Your task to perform on an android device: Go to eBay Image 0: 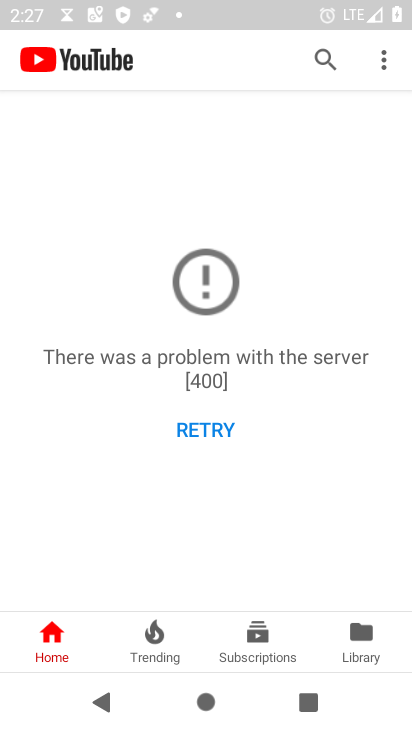
Step 0: press back button
Your task to perform on an android device: Go to eBay Image 1: 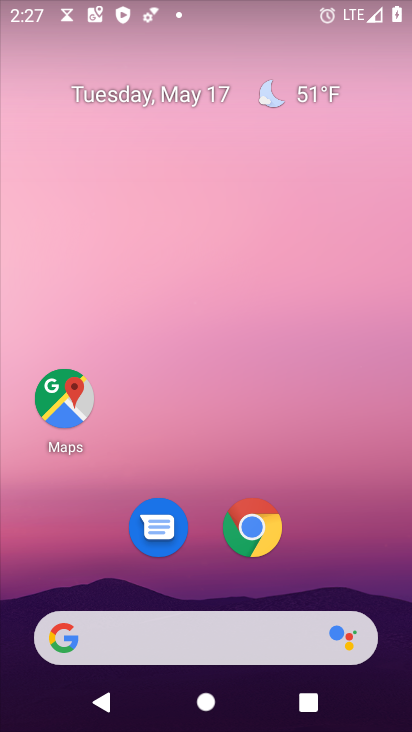
Step 1: drag from (336, 566) to (277, 133)
Your task to perform on an android device: Go to eBay Image 2: 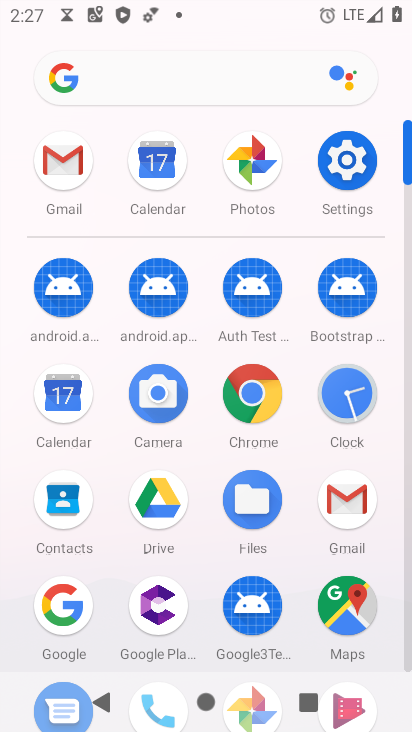
Step 2: click (58, 607)
Your task to perform on an android device: Go to eBay Image 3: 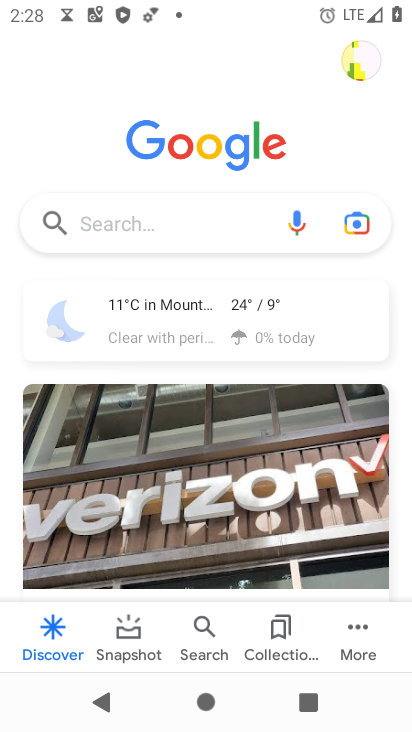
Step 3: click (211, 211)
Your task to perform on an android device: Go to eBay Image 4: 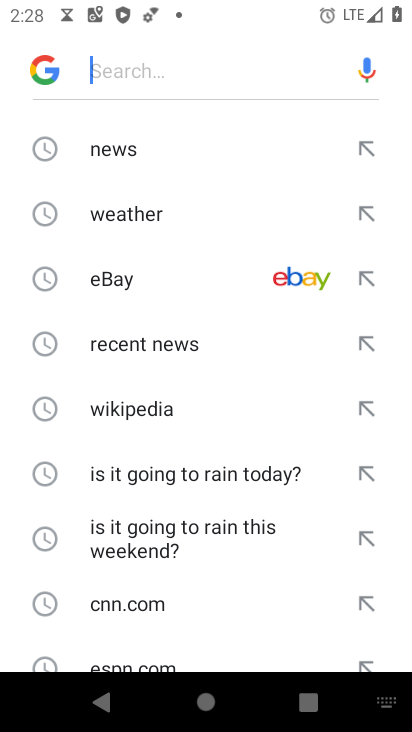
Step 4: type "eBay"
Your task to perform on an android device: Go to eBay Image 5: 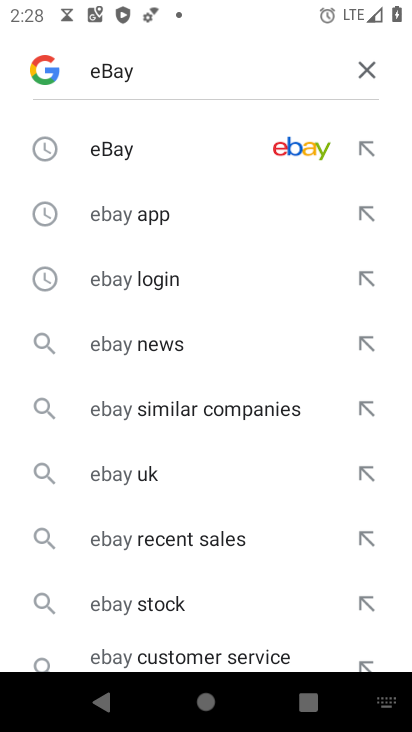
Step 5: click (189, 150)
Your task to perform on an android device: Go to eBay Image 6: 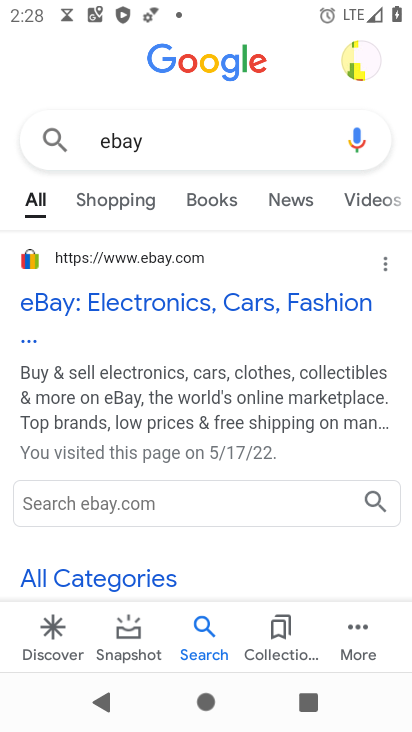
Step 6: click (174, 295)
Your task to perform on an android device: Go to eBay Image 7: 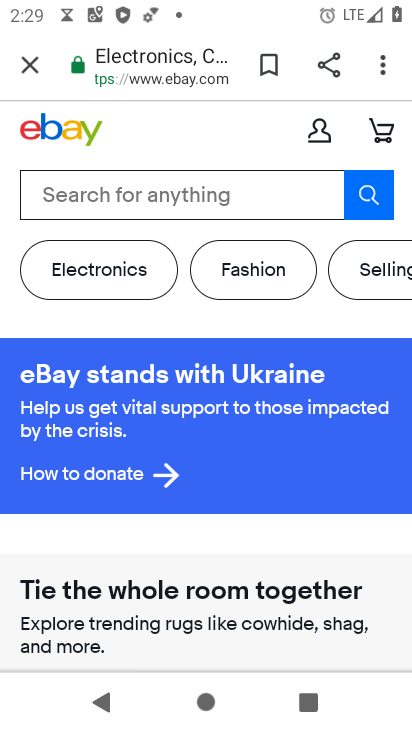
Step 7: task complete